Your task to perform on an android device: open app "Google Play Music" (install if not already installed) Image 0: 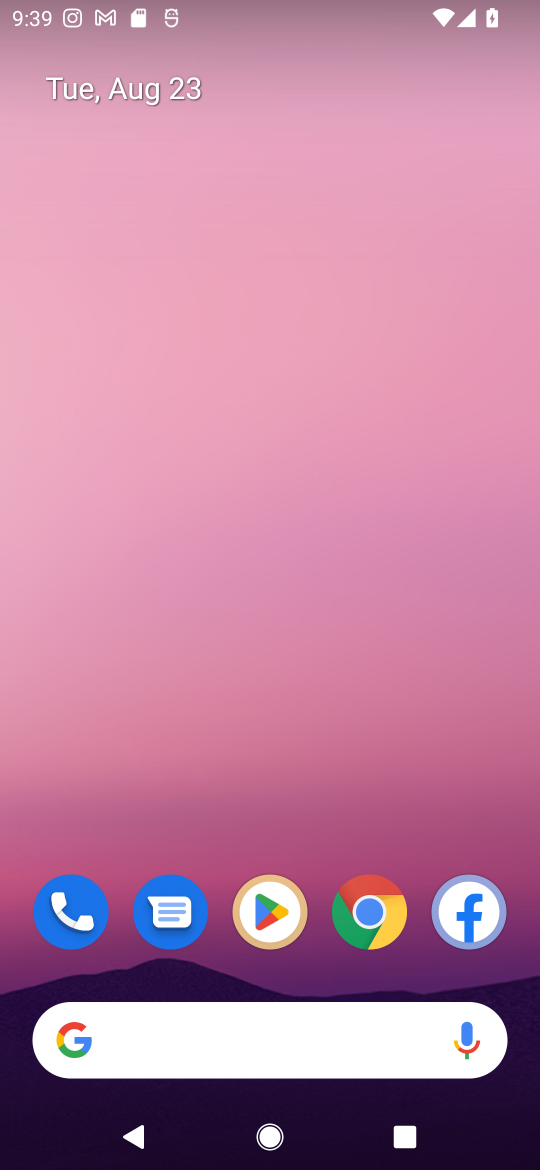
Step 0: click (277, 915)
Your task to perform on an android device: open app "Google Play Music" (install if not already installed) Image 1: 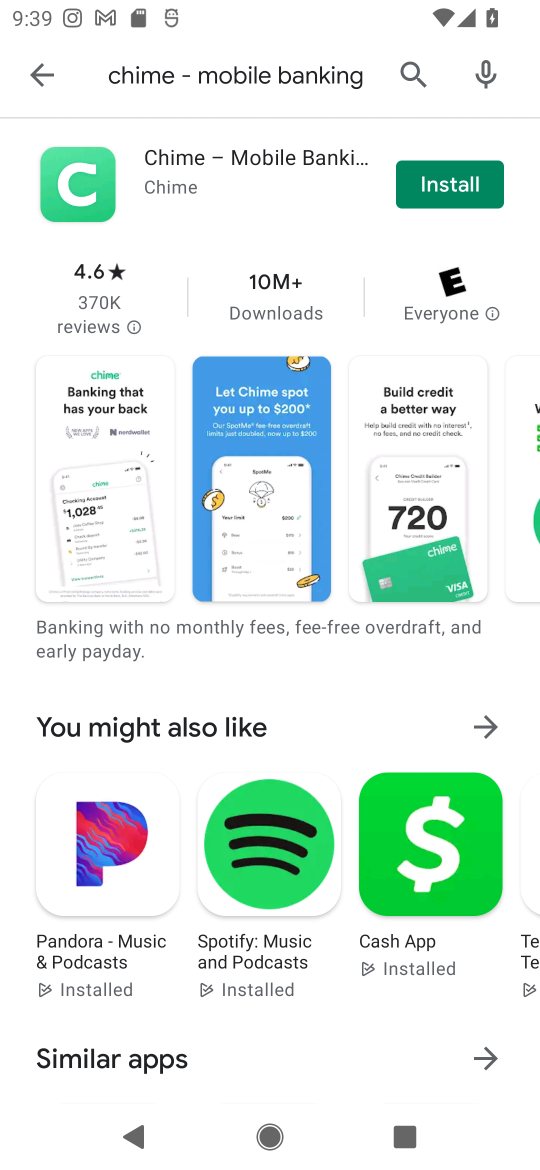
Step 1: click (408, 62)
Your task to perform on an android device: open app "Google Play Music" (install if not already installed) Image 2: 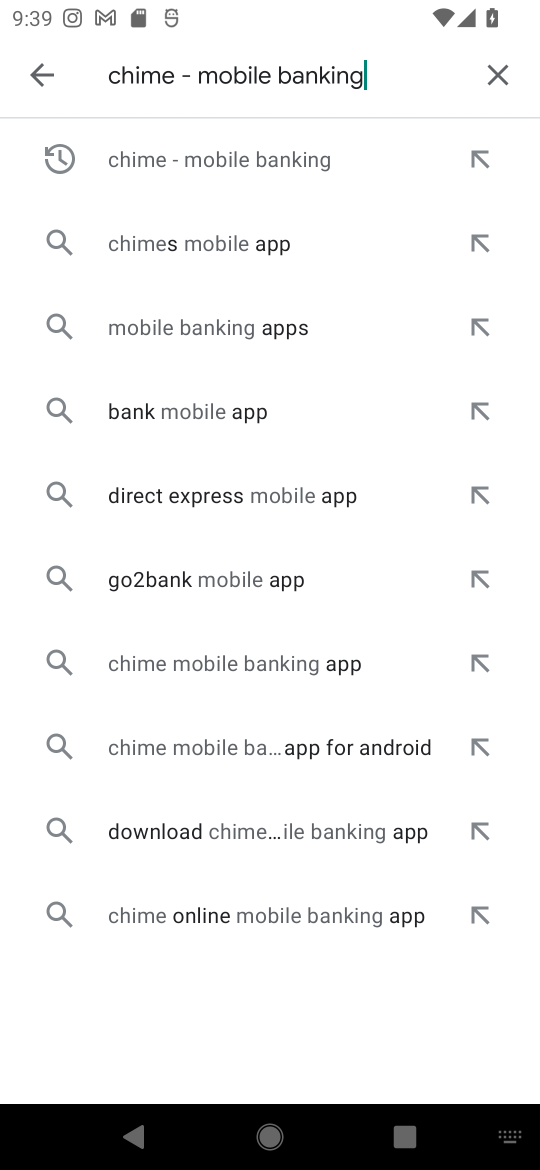
Step 2: click (508, 70)
Your task to perform on an android device: open app "Google Play Music" (install if not already installed) Image 3: 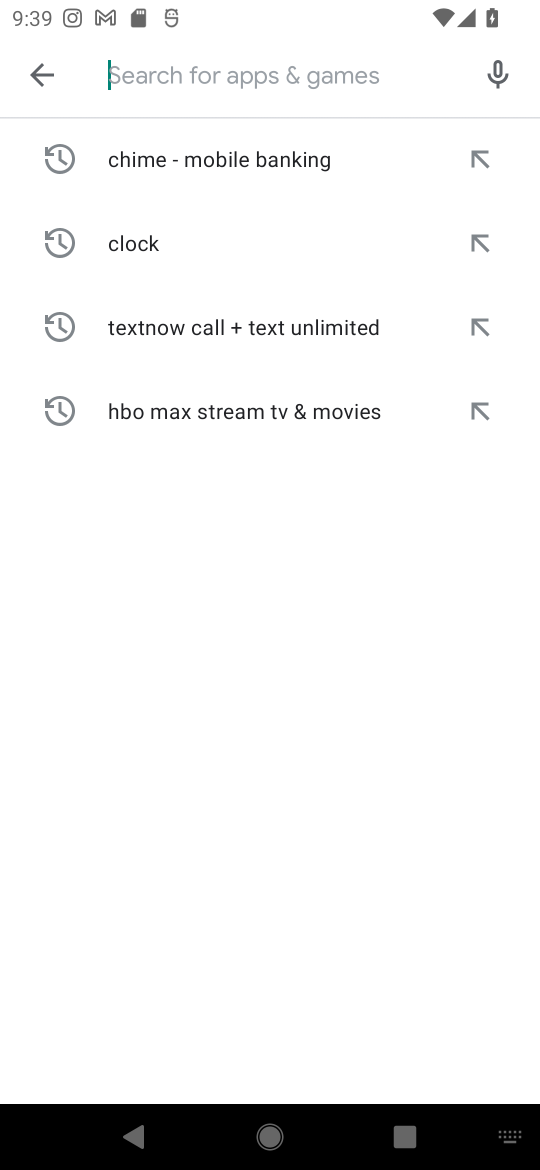
Step 3: type "Google Play music"
Your task to perform on an android device: open app "Google Play Music" (install if not already installed) Image 4: 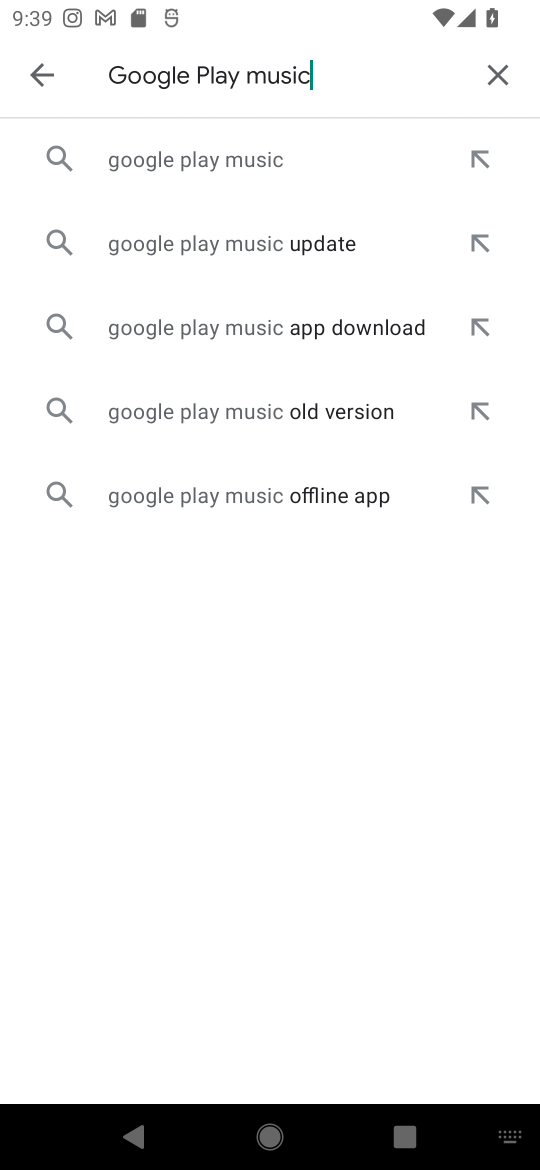
Step 4: click (232, 155)
Your task to perform on an android device: open app "Google Play Music" (install if not already installed) Image 5: 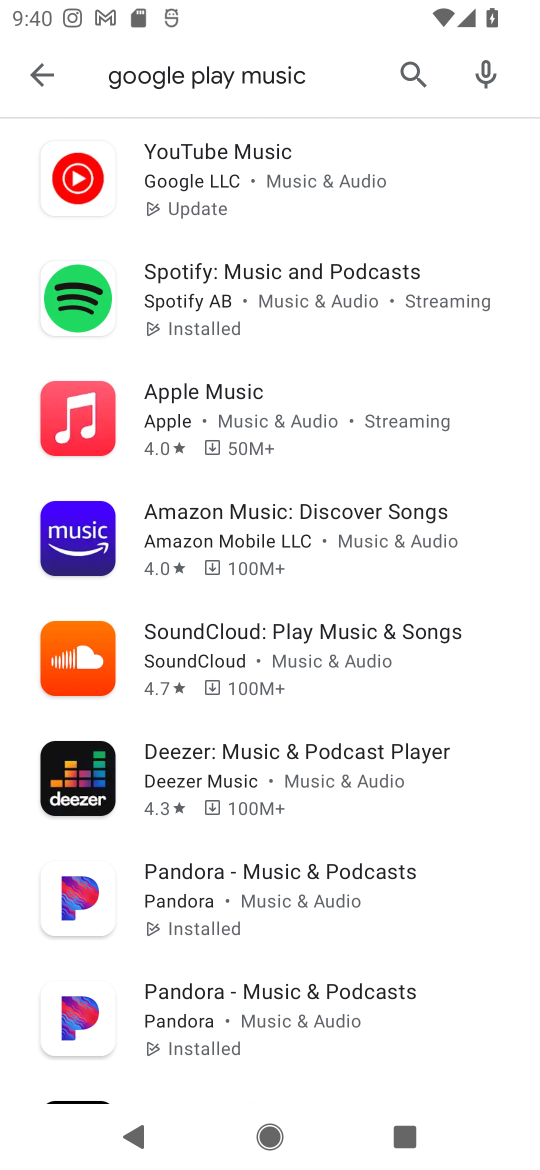
Step 5: task complete